Your task to perform on an android device: turn off sleep mode Image 0: 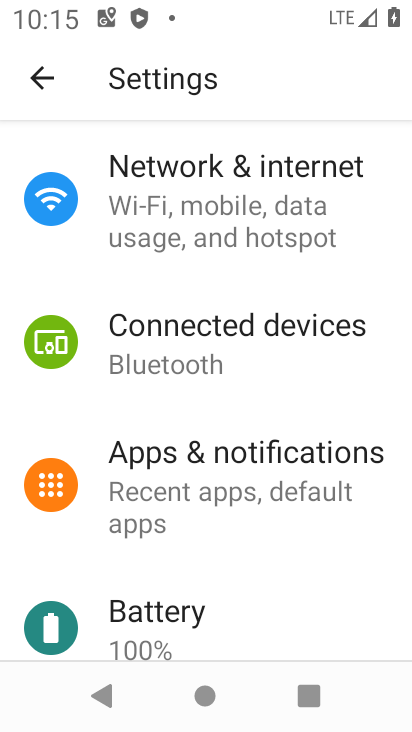
Step 0: press home button
Your task to perform on an android device: turn off sleep mode Image 1: 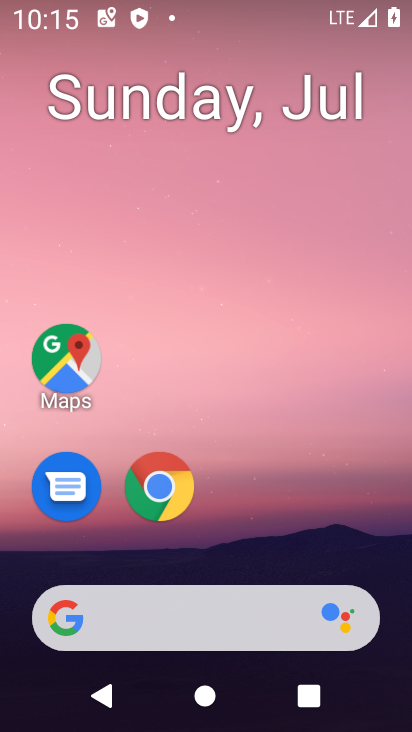
Step 1: drag from (392, 548) to (367, 151)
Your task to perform on an android device: turn off sleep mode Image 2: 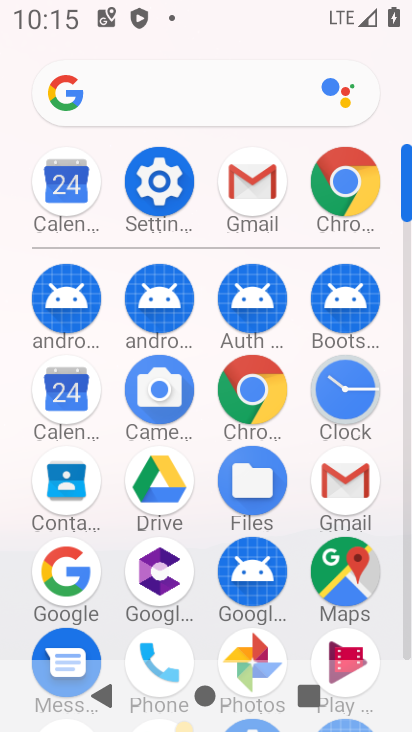
Step 2: click (170, 190)
Your task to perform on an android device: turn off sleep mode Image 3: 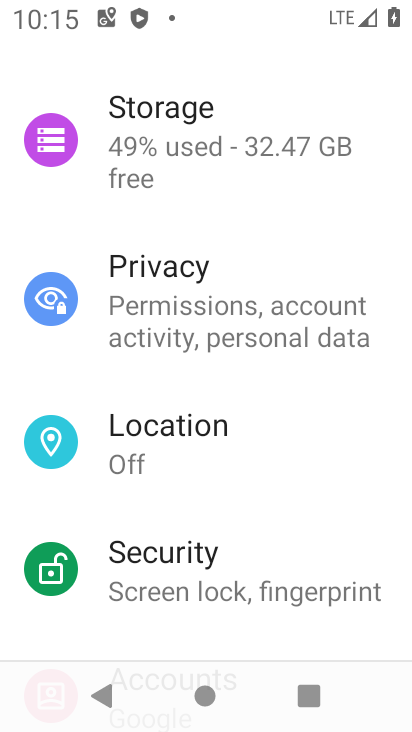
Step 3: drag from (337, 447) to (322, 308)
Your task to perform on an android device: turn off sleep mode Image 4: 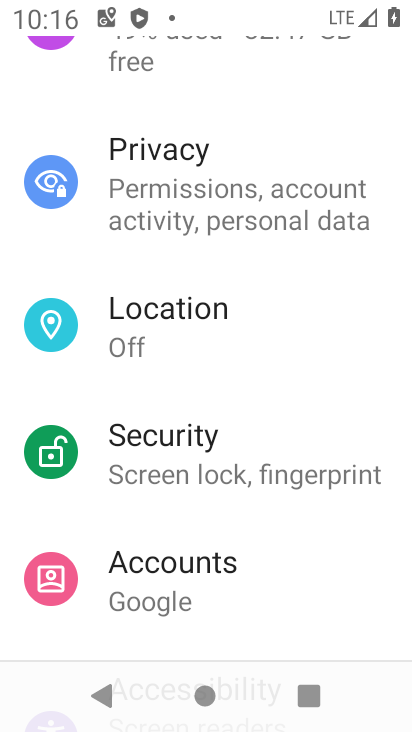
Step 4: drag from (306, 429) to (297, 306)
Your task to perform on an android device: turn off sleep mode Image 5: 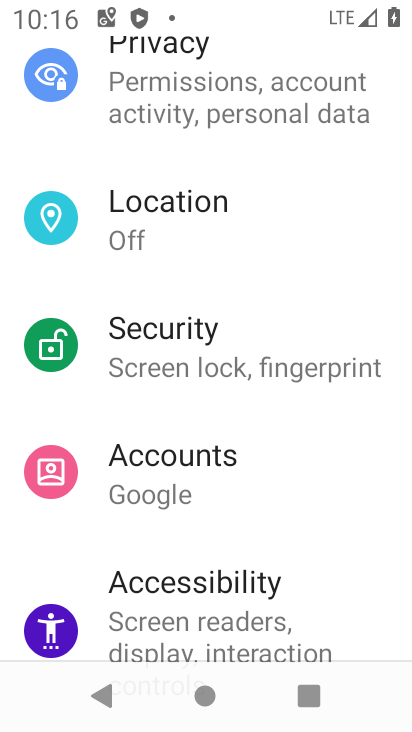
Step 5: drag from (289, 464) to (275, 325)
Your task to perform on an android device: turn off sleep mode Image 6: 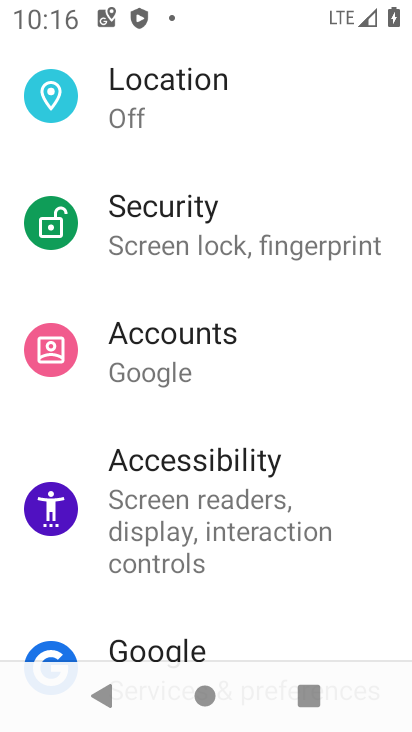
Step 6: drag from (344, 528) to (345, 397)
Your task to perform on an android device: turn off sleep mode Image 7: 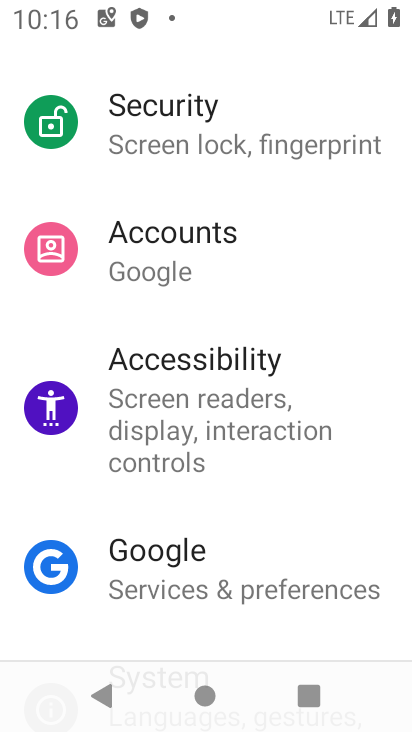
Step 7: drag from (341, 536) to (337, 426)
Your task to perform on an android device: turn off sleep mode Image 8: 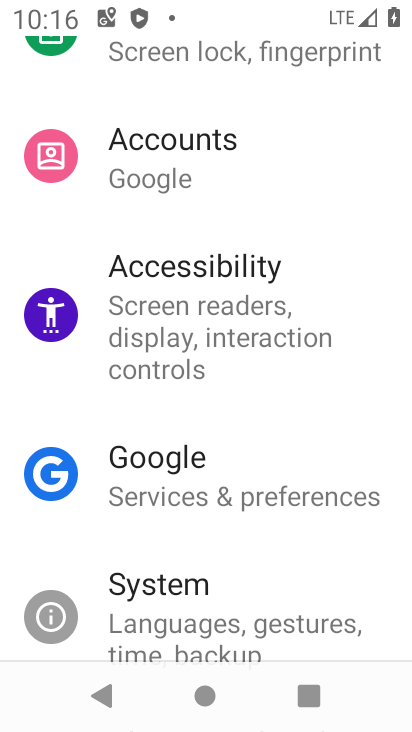
Step 8: drag from (321, 552) to (319, 439)
Your task to perform on an android device: turn off sleep mode Image 9: 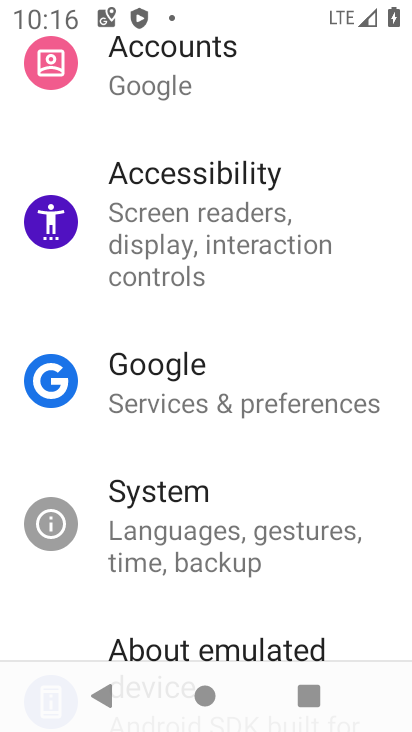
Step 9: drag from (319, 525) to (312, 430)
Your task to perform on an android device: turn off sleep mode Image 10: 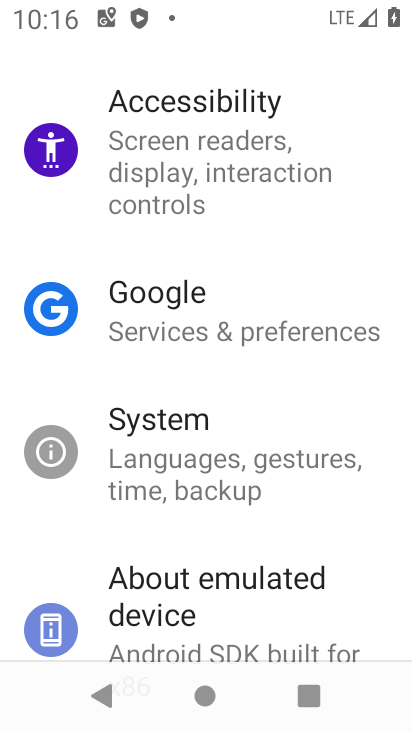
Step 10: drag from (311, 520) to (295, 413)
Your task to perform on an android device: turn off sleep mode Image 11: 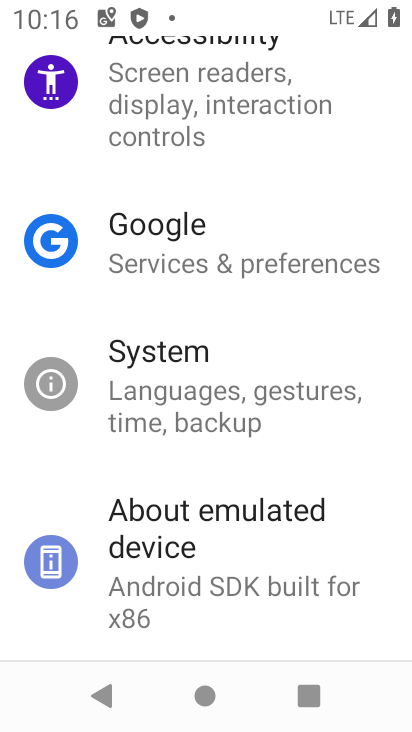
Step 11: drag from (349, 602) to (347, 473)
Your task to perform on an android device: turn off sleep mode Image 12: 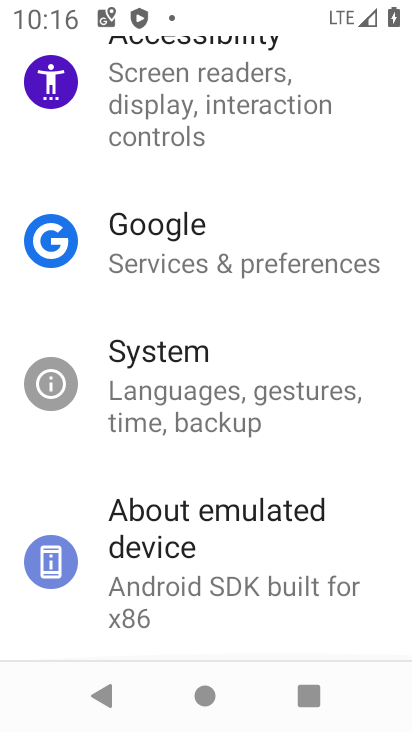
Step 12: drag from (358, 365) to (364, 469)
Your task to perform on an android device: turn off sleep mode Image 13: 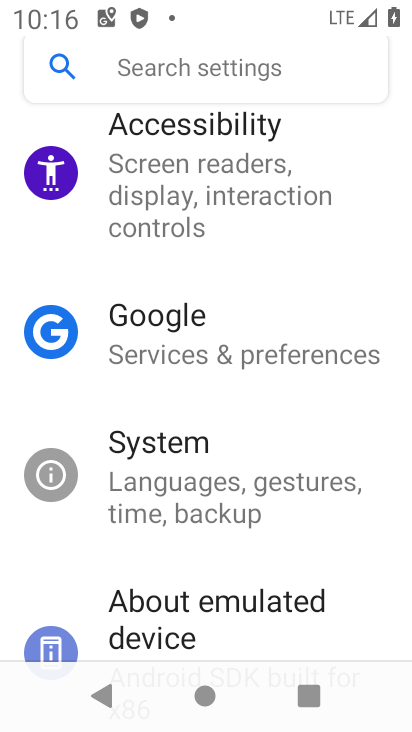
Step 13: drag from (368, 322) to (377, 423)
Your task to perform on an android device: turn off sleep mode Image 14: 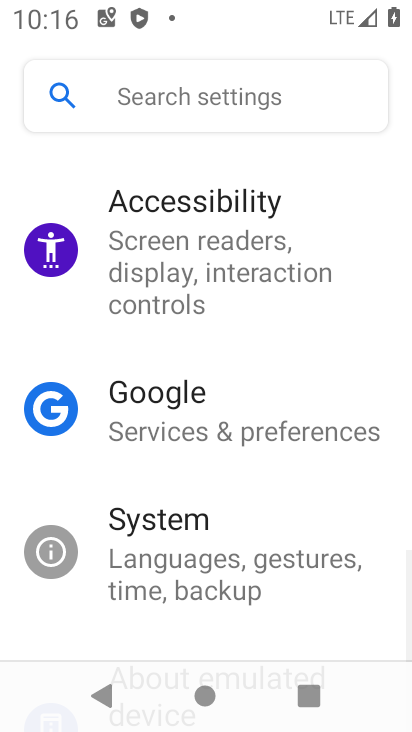
Step 14: drag from (369, 271) to (362, 383)
Your task to perform on an android device: turn off sleep mode Image 15: 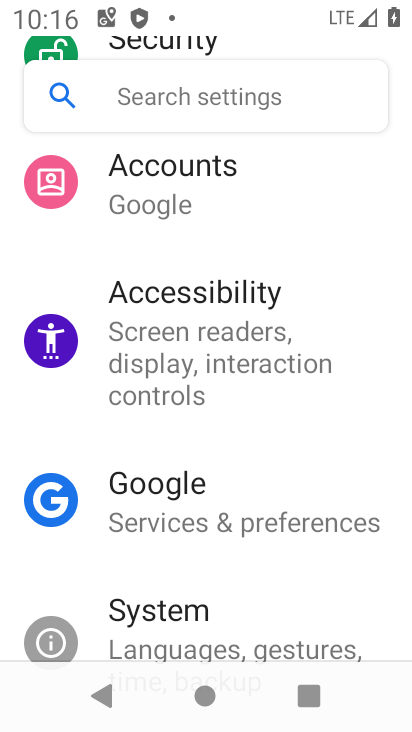
Step 15: drag from (354, 249) to (352, 367)
Your task to perform on an android device: turn off sleep mode Image 16: 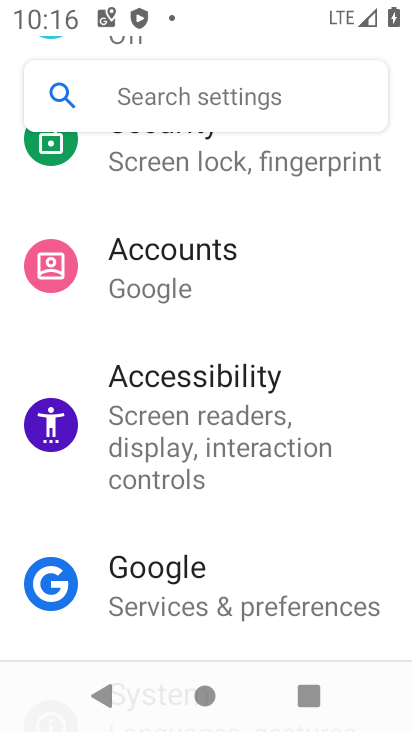
Step 16: drag from (342, 223) to (336, 349)
Your task to perform on an android device: turn off sleep mode Image 17: 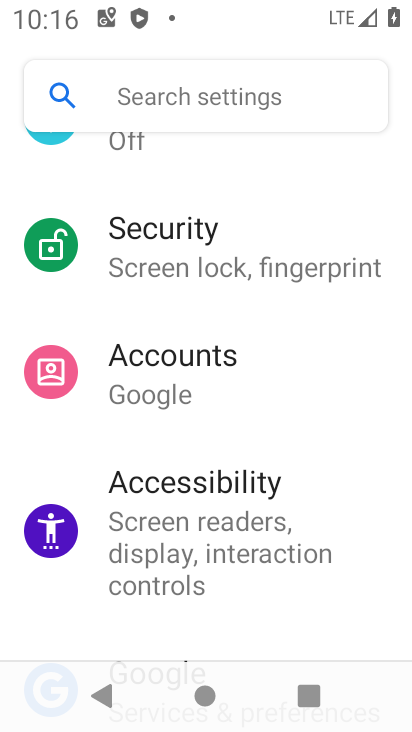
Step 17: drag from (326, 196) to (335, 340)
Your task to perform on an android device: turn off sleep mode Image 18: 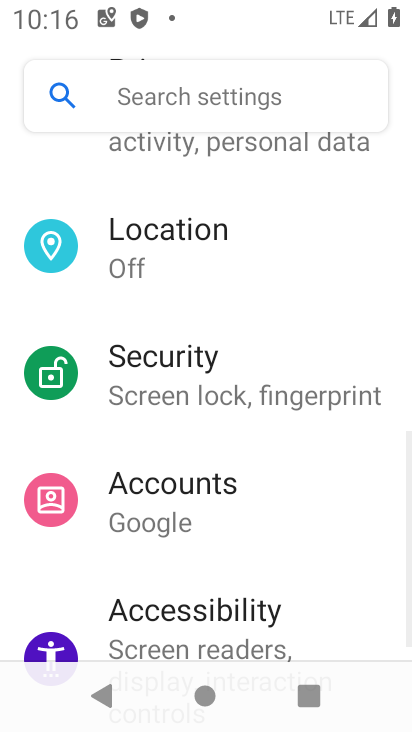
Step 18: drag from (331, 200) to (328, 331)
Your task to perform on an android device: turn off sleep mode Image 19: 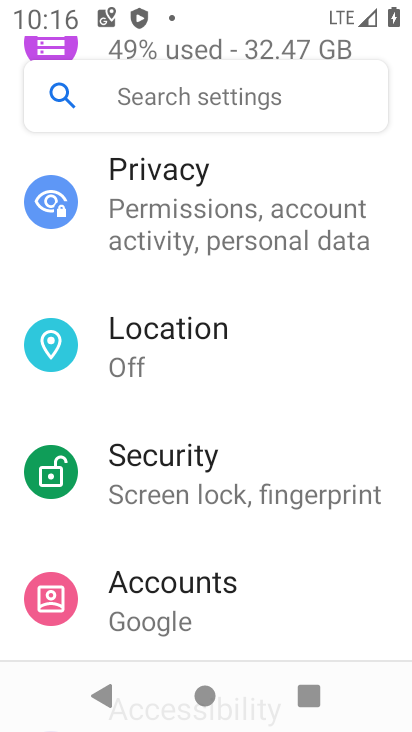
Step 19: drag from (328, 171) to (328, 327)
Your task to perform on an android device: turn off sleep mode Image 20: 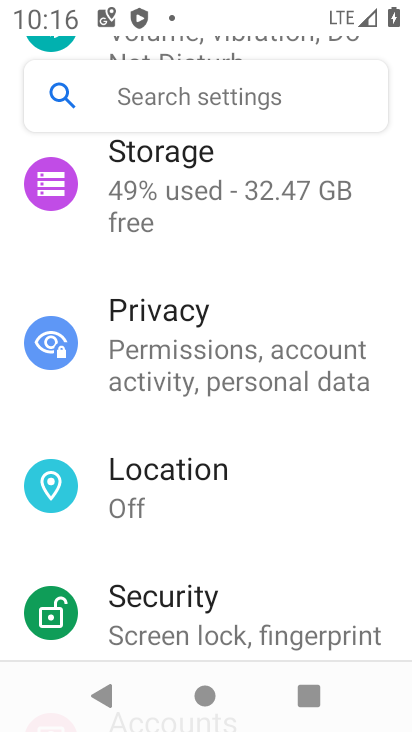
Step 20: drag from (349, 155) to (345, 312)
Your task to perform on an android device: turn off sleep mode Image 21: 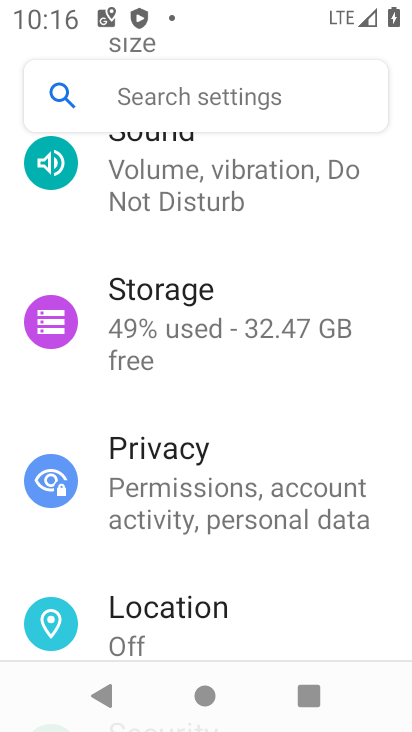
Step 21: drag from (340, 149) to (327, 325)
Your task to perform on an android device: turn off sleep mode Image 22: 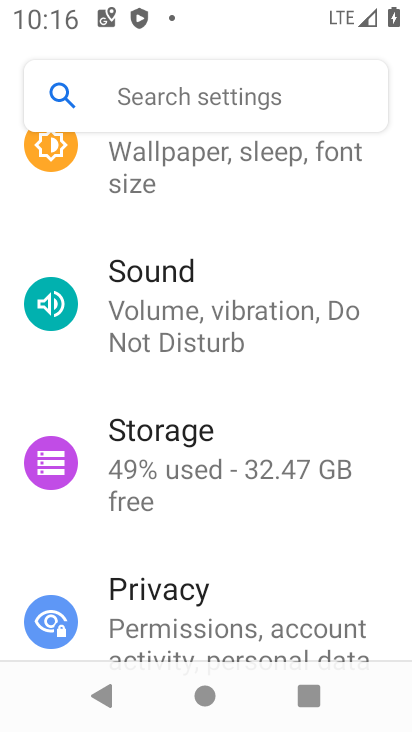
Step 22: drag from (332, 179) to (332, 344)
Your task to perform on an android device: turn off sleep mode Image 23: 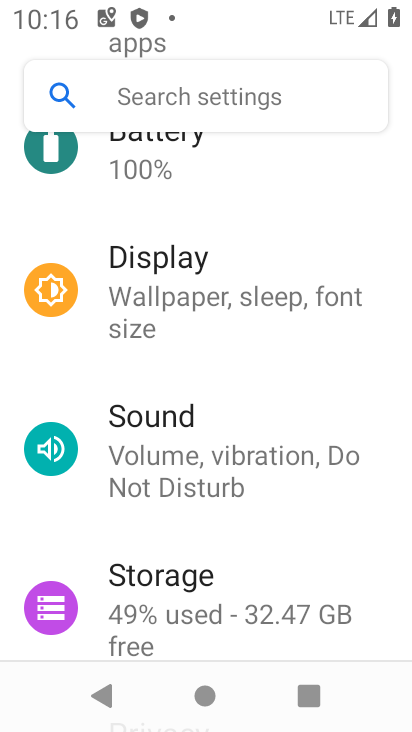
Step 23: click (311, 299)
Your task to perform on an android device: turn off sleep mode Image 24: 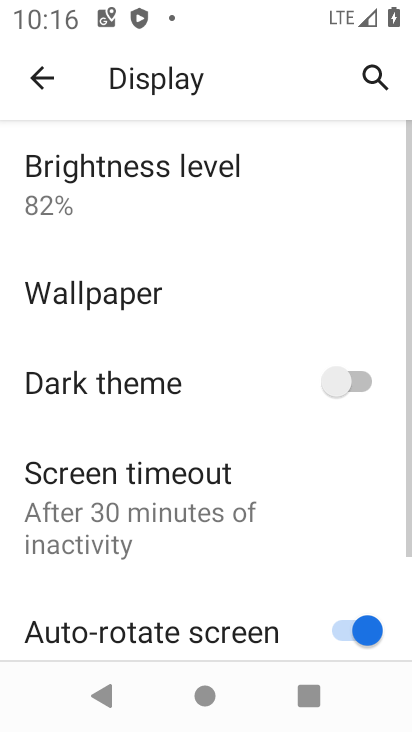
Step 24: drag from (293, 386) to (298, 287)
Your task to perform on an android device: turn off sleep mode Image 25: 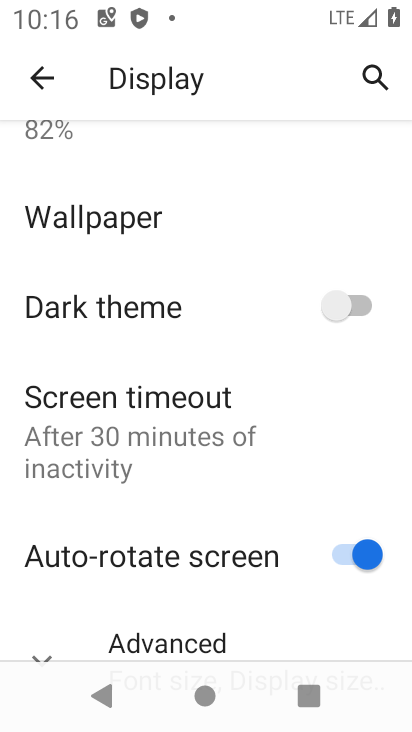
Step 25: drag from (291, 447) to (288, 282)
Your task to perform on an android device: turn off sleep mode Image 26: 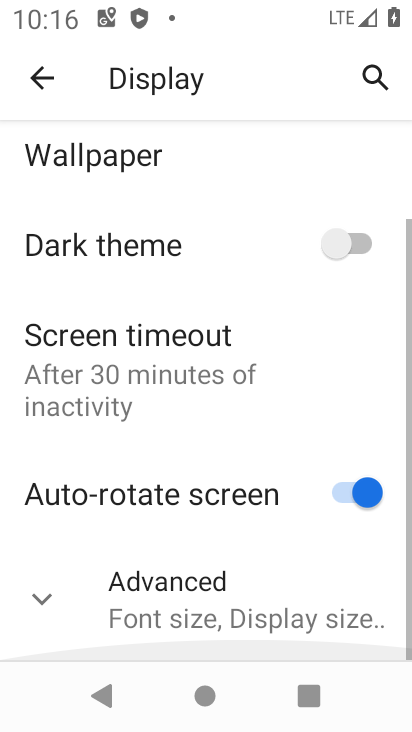
Step 26: click (243, 560)
Your task to perform on an android device: turn off sleep mode Image 27: 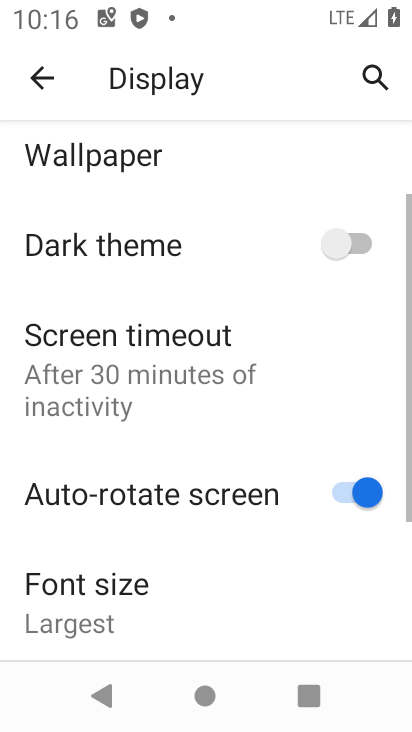
Step 27: task complete